Your task to perform on an android device: Go to calendar. Show me events next week Image 0: 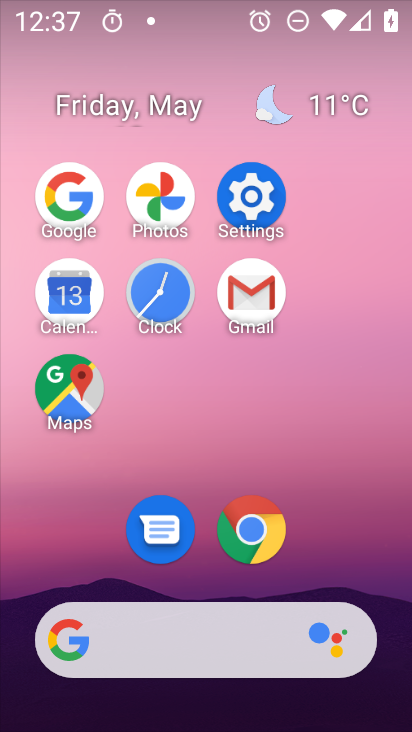
Step 0: click (78, 299)
Your task to perform on an android device: Go to calendar. Show me events next week Image 1: 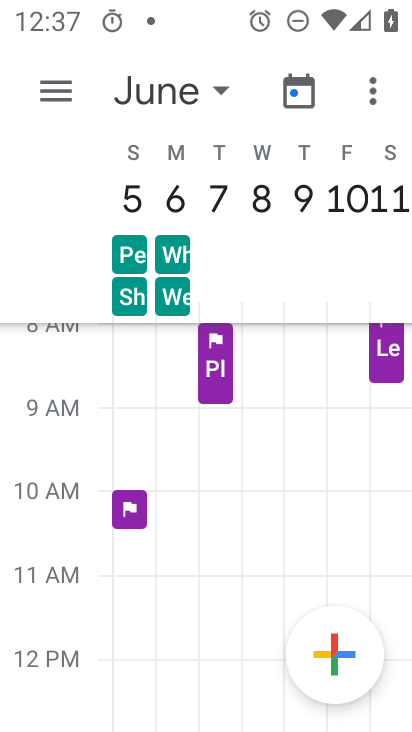
Step 1: click (178, 80)
Your task to perform on an android device: Go to calendar. Show me events next week Image 2: 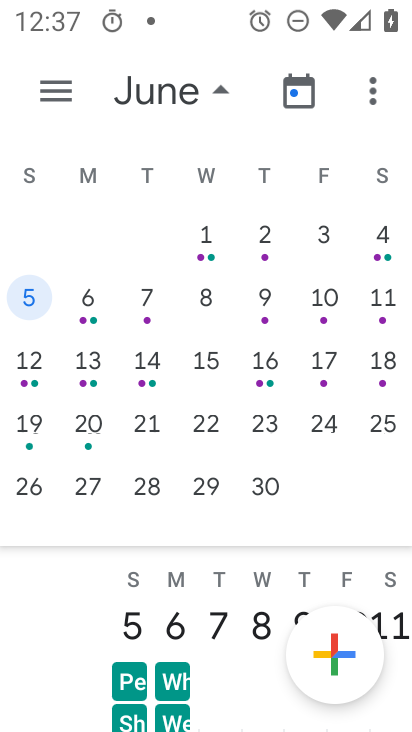
Step 2: drag from (18, 338) to (411, 388)
Your task to perform on an android device: Go to calendar. Show me events next week Image 3: 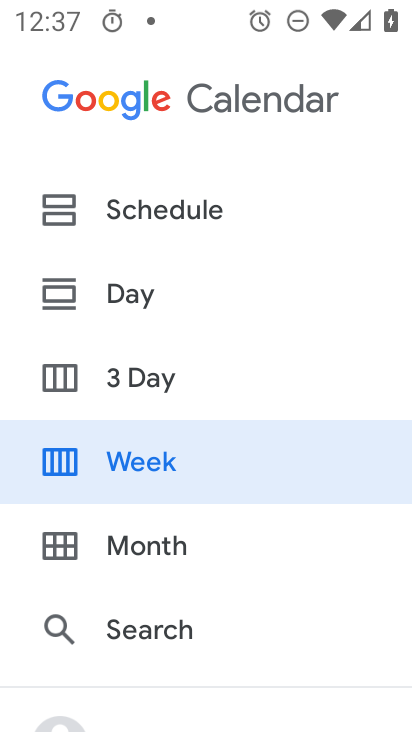
Step 3: drag from (352, 488) to (12, 451)
Your task to perform on an android device: Go to calendar. Show me events next week Image 4: 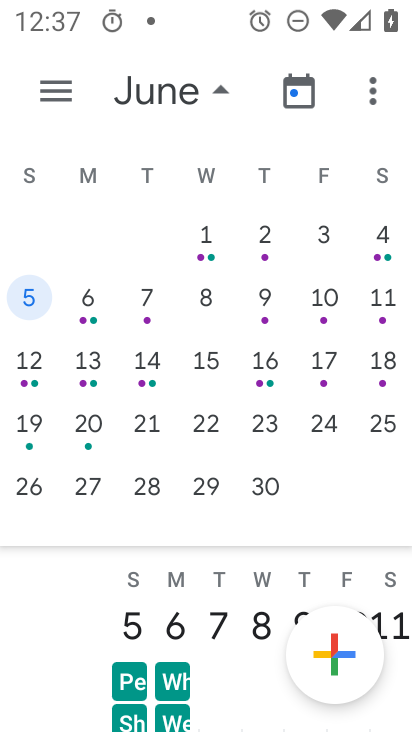
Step 4: drag from (47, 361) to (375, 190)
Your task to perform on an android device: Go to calendar. Show me events next week Image 5: 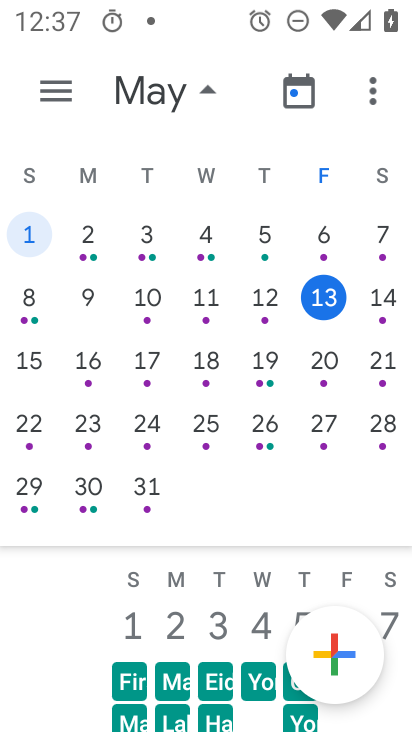
Step 5: click (58, 80)
Your task to perform on an android device: Go to calendar. Show me events next week Image 6: 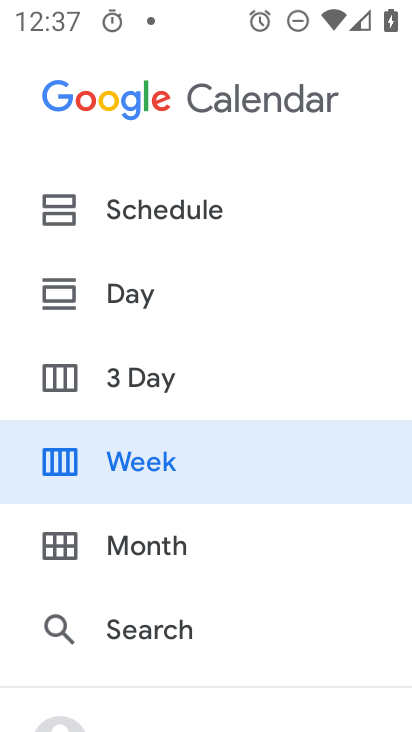
Step 6: click (149, 432)
Your task to perform on an android device: Go to calendar. Show me events next week Image 7: 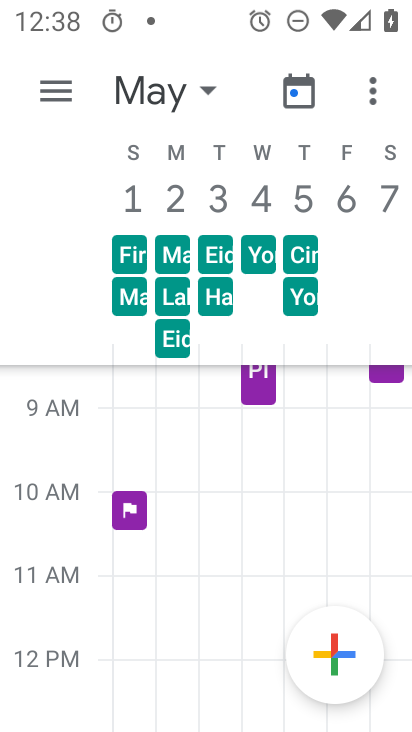
Step 7: task complete